Your task to perform on an android device: What's on my calendar today? Image 0: 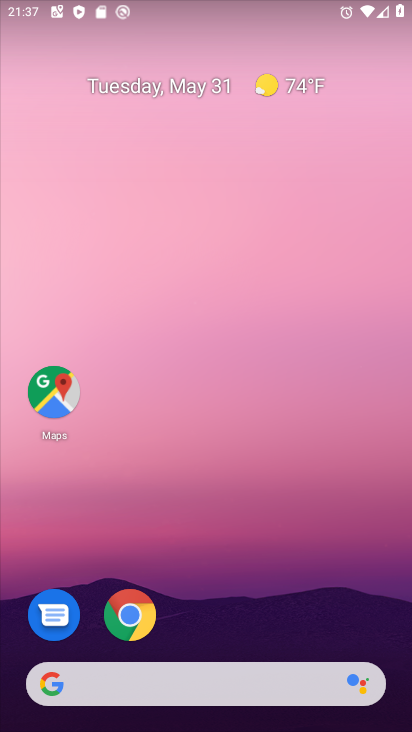
Step 0: drag from (211, 634) to (234, 172)
Your task to perform on an android device: What's on my calendar today? Image 1: 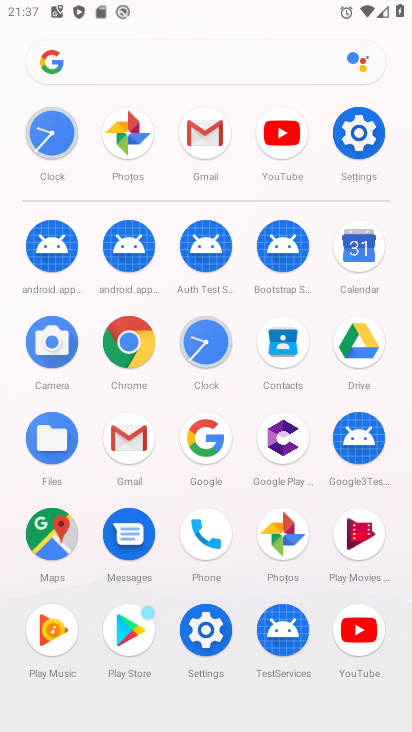
Step 1: click (352, 232)
Your task to perform on an android device: What's on my calendar today? Image 2: 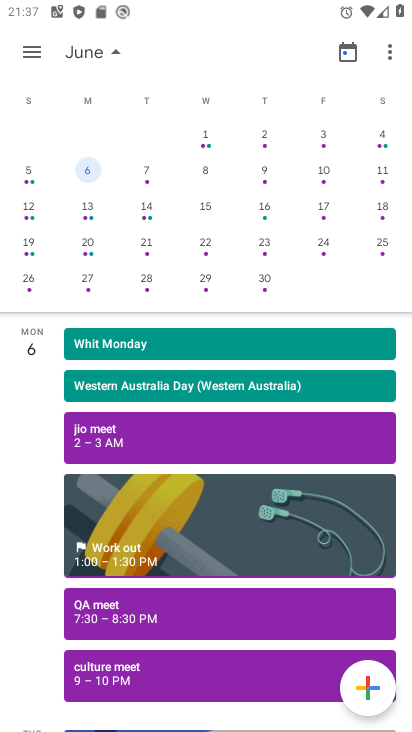
Step 2: drag from (54, 210) to (406, 224)
Your task to perform on an android device: What's on my calendar today? Image 3: 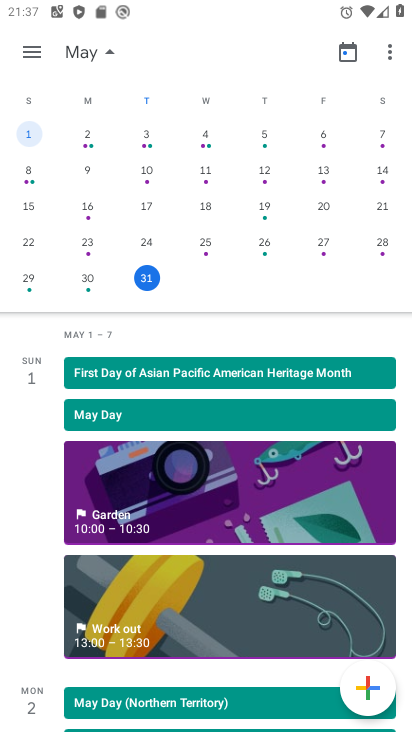
Step 3: click (149, 289)
Your task to perform on an android device: What's on my calendar today? Image 4: 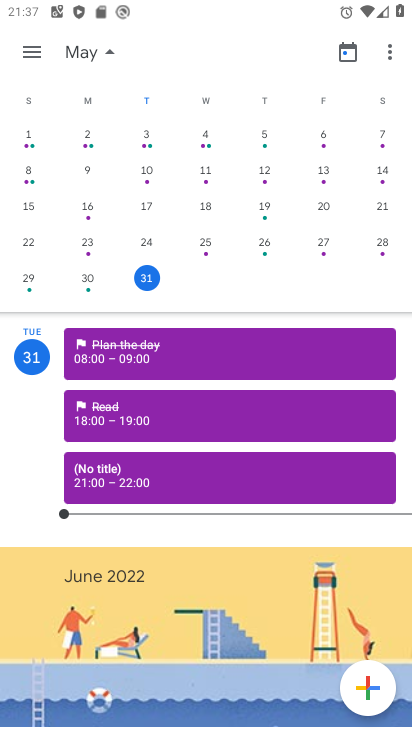
Step 4: task complete